Your task to perform on an android device: Open Yahoo.com Image 0: 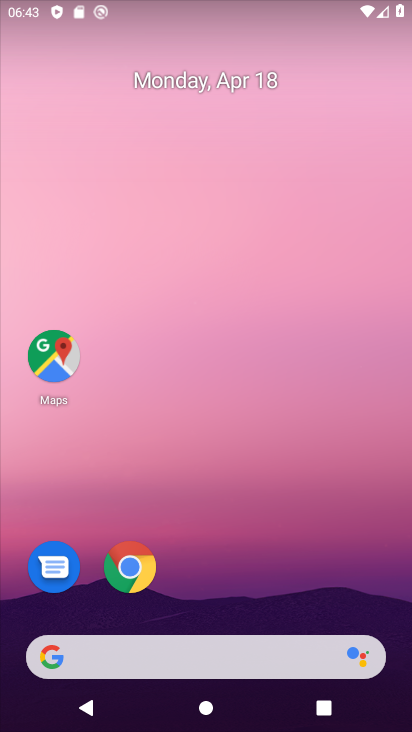
Step 0: drag from (274, 542) to (253, 1)
Your task to perform on an android device: Open Yahoo.com Image 1: 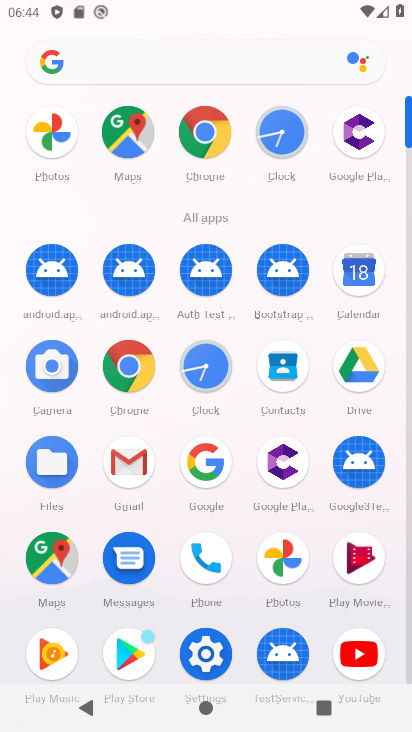
Step 1: click (198, 126)
Your task to perform on an android device: Open Yahoo.com Image 2: 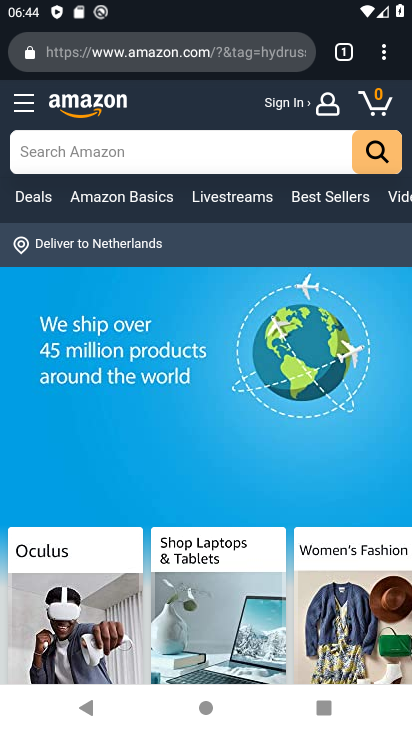
Step 2: click (389, 49)
Your task to perform on an android device: Open Yahoo.com Image 3: 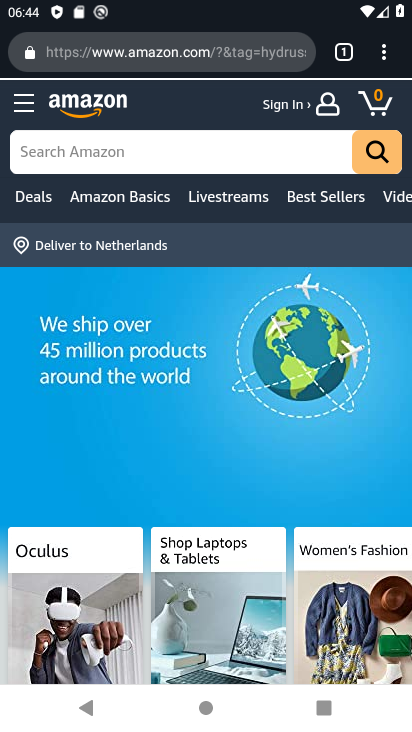
Step 3: drag from (384, 53) to (192, 79)
Your task to perform on an android device: Open Yahoo.com Image 4: 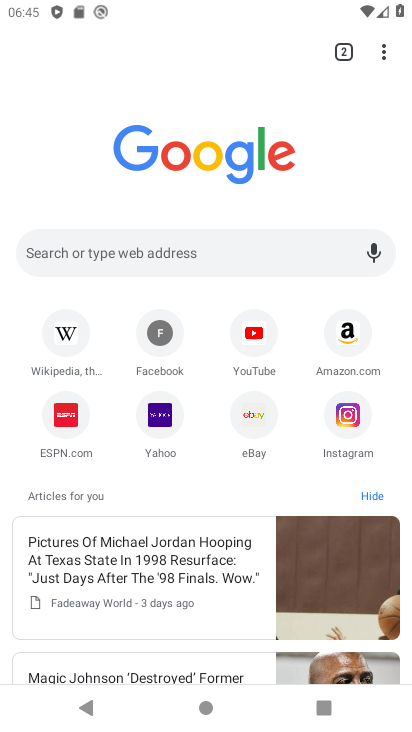
Step 4: click (149, 411)
Your task to perform on an android device: Open Yahoo.com Image 5: 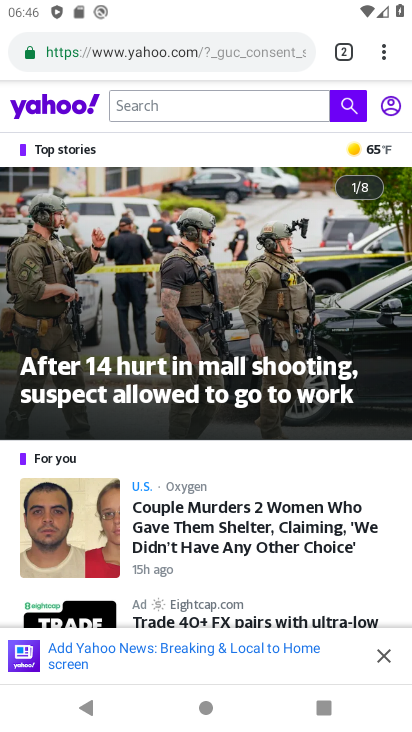
Step 5: task complete